Your task to perform on an android device: snooze an email in the gmail app Image 0: 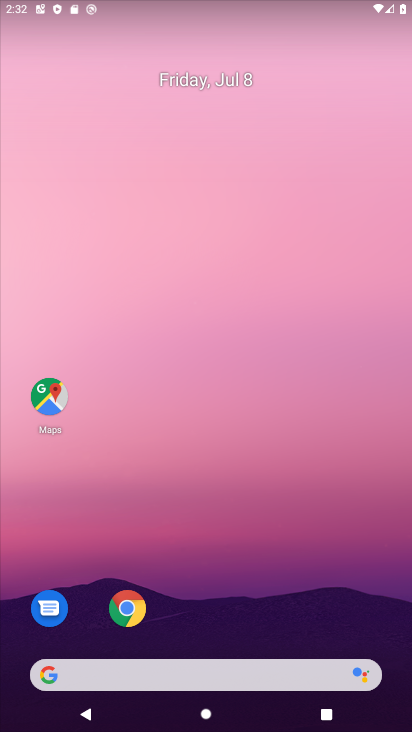
Step 0: drag from (342, 681) to (351, 14)
Your task to perform on an android device: snooze an email in the gmail app Image 1: 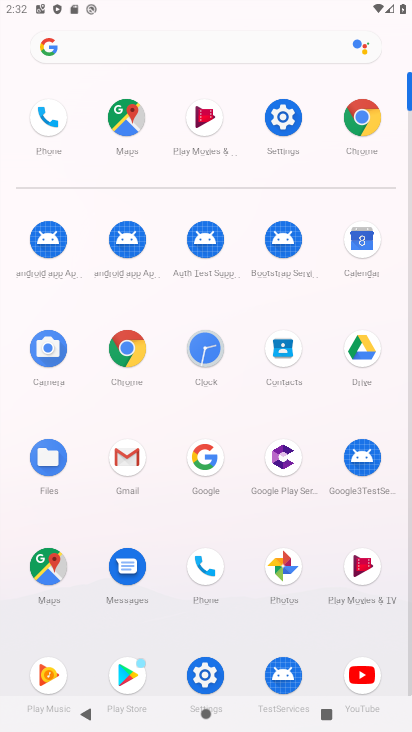
Step 1: click (117, 459)
Your task to perform on an android device: snooze an email in the gmail app Image 2: 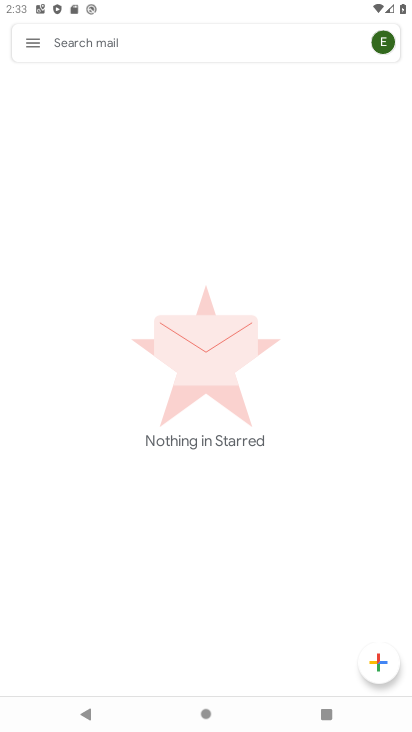
Step 2: click (36, 47)
Your task to perform on an android device: snooze an email in the gmail app Image 3: 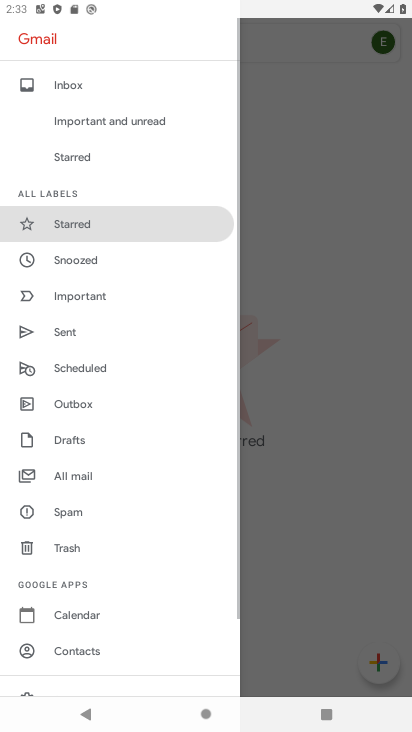
Step 3: click (100, 256)
Your task to perform on an android device: snooze an email in the gmail app Image 4: 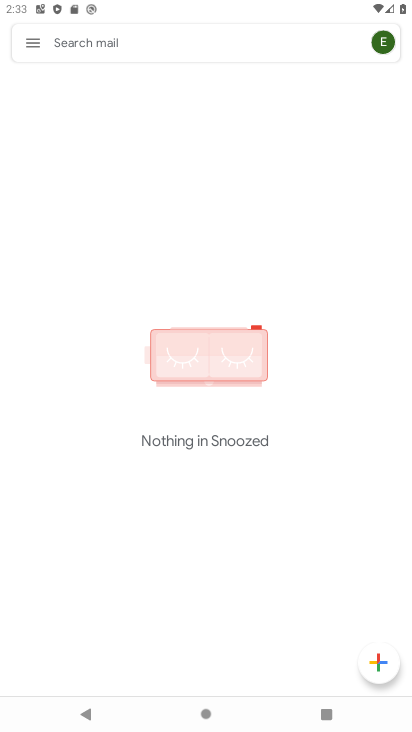
Step 4: task complete